Your task to perform on an android device: turn off notifications settings in the gmail app Image 0: 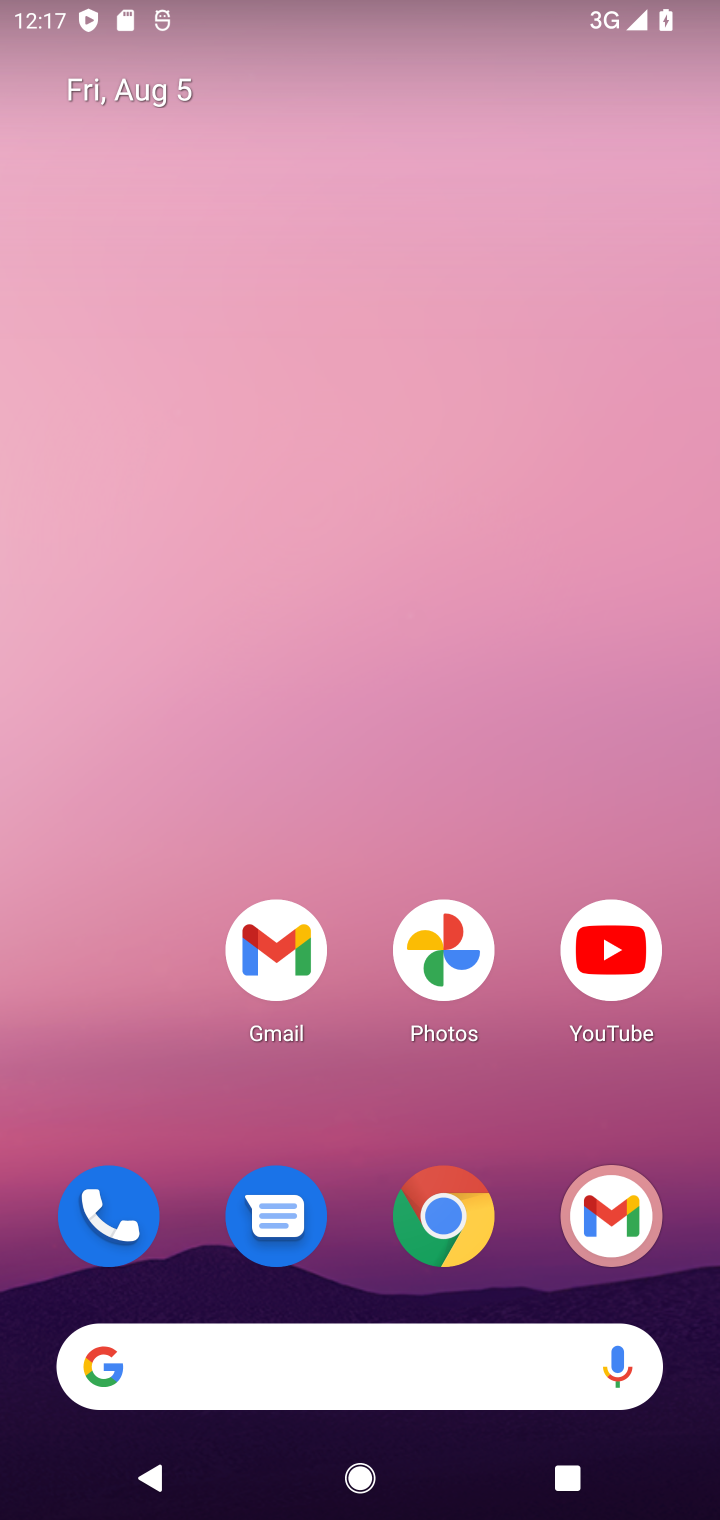
Step 0: drag from (443, 1329) to (497, 95)
Your task to perform on an android device: turn off notifications settings in the gmail app Image 1: 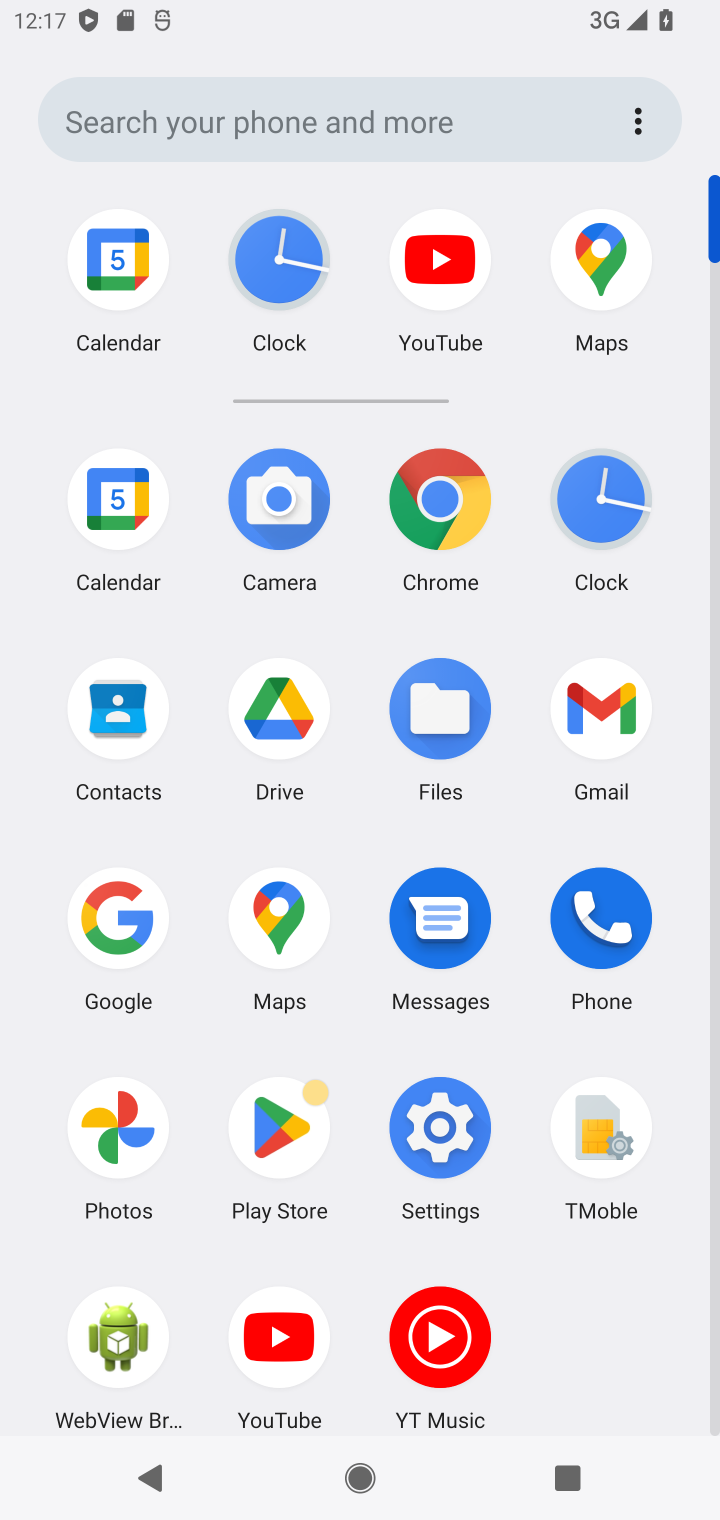
Step 1: click (586, 691)
Your task to perform on an android device: turn off notifications settings in the gmail app Image 2: 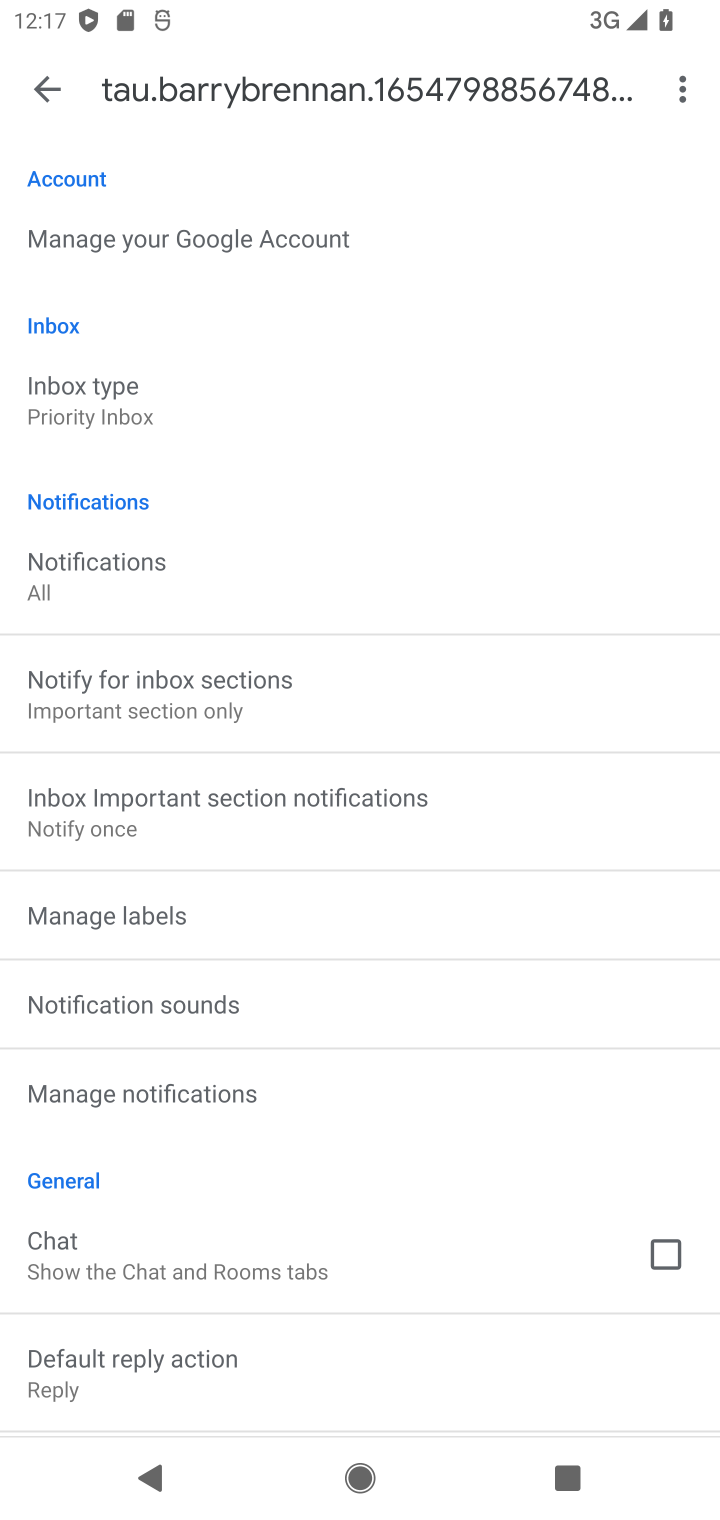
Step 2: click (156, 1069)
Your task to perform on an android device: turn off notifications settings in the gmail app Image 3: 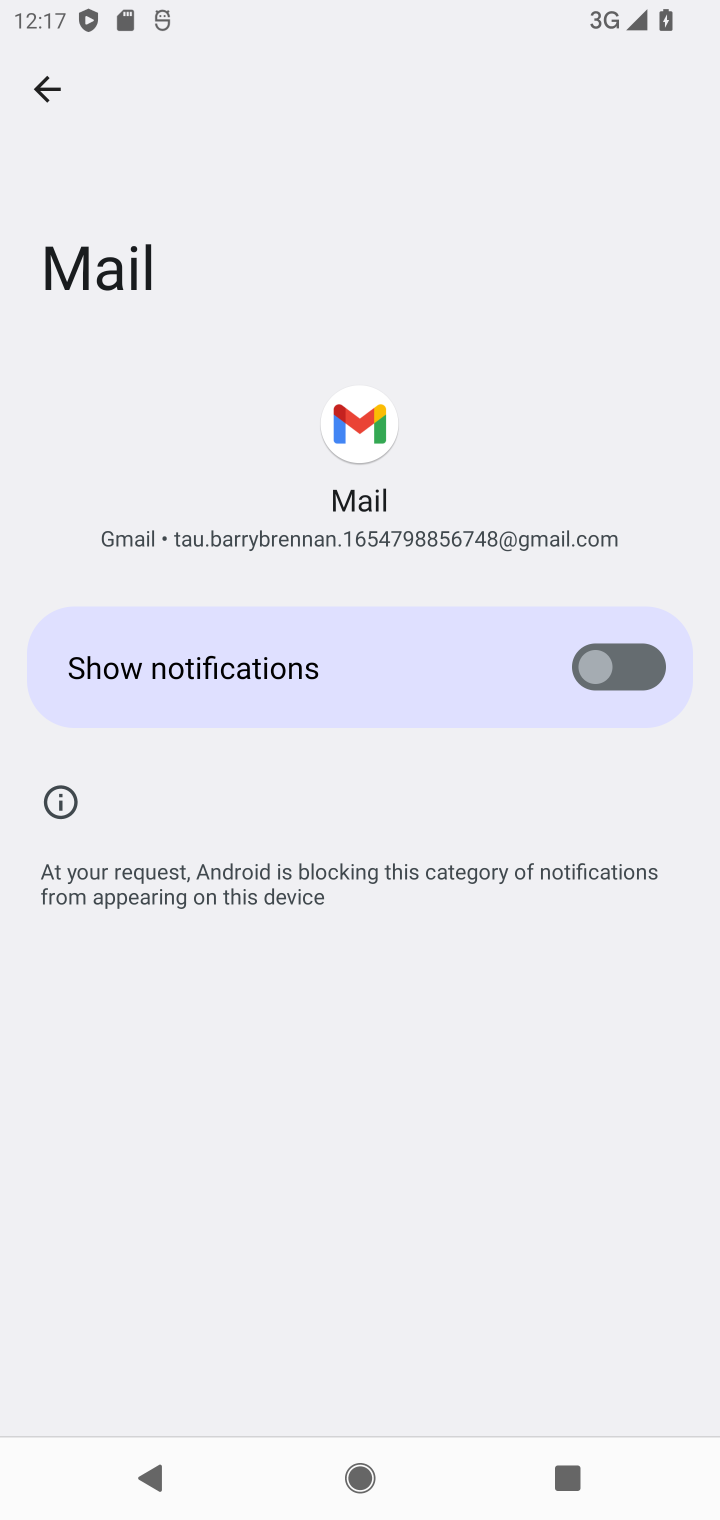
Step 3: task complete